Your task to perform on an android device: Add razer naga to the cart on newegg Image 0: 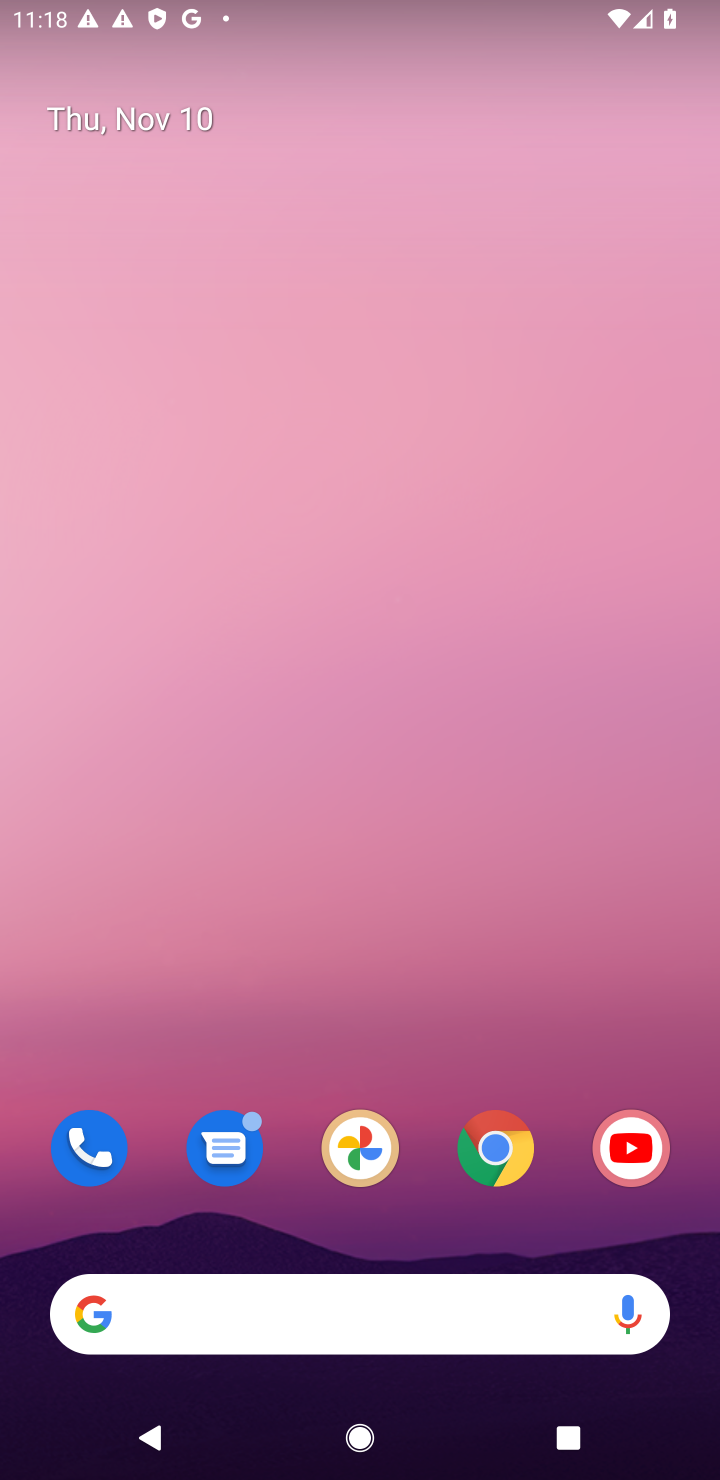
Step 0: click (323, 1309)
Your task to perform on an android device: Add razer naga to the cart on newegg Image 1: 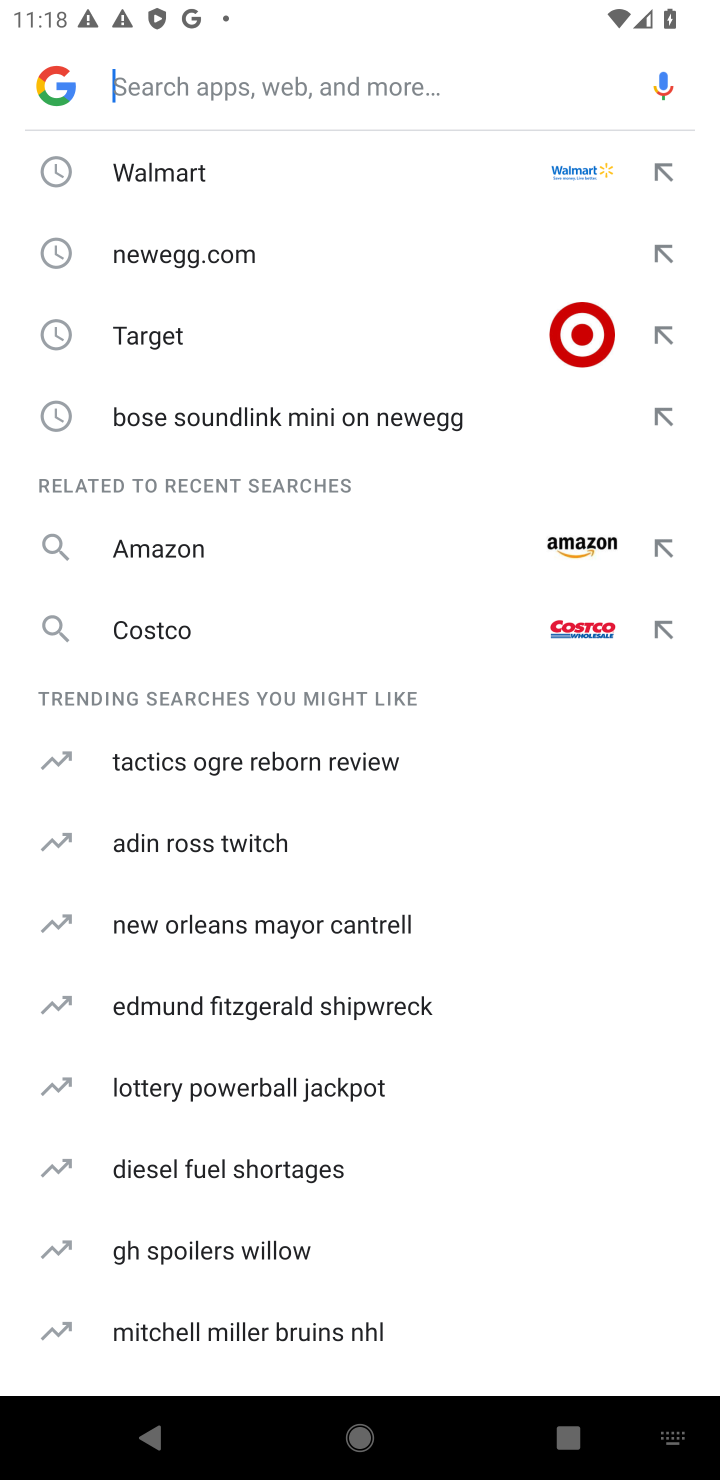
Step 1: type "razer naga on newegg"
Your task to perform on an android device: Add razer naga to the cart on newegg Image 2: 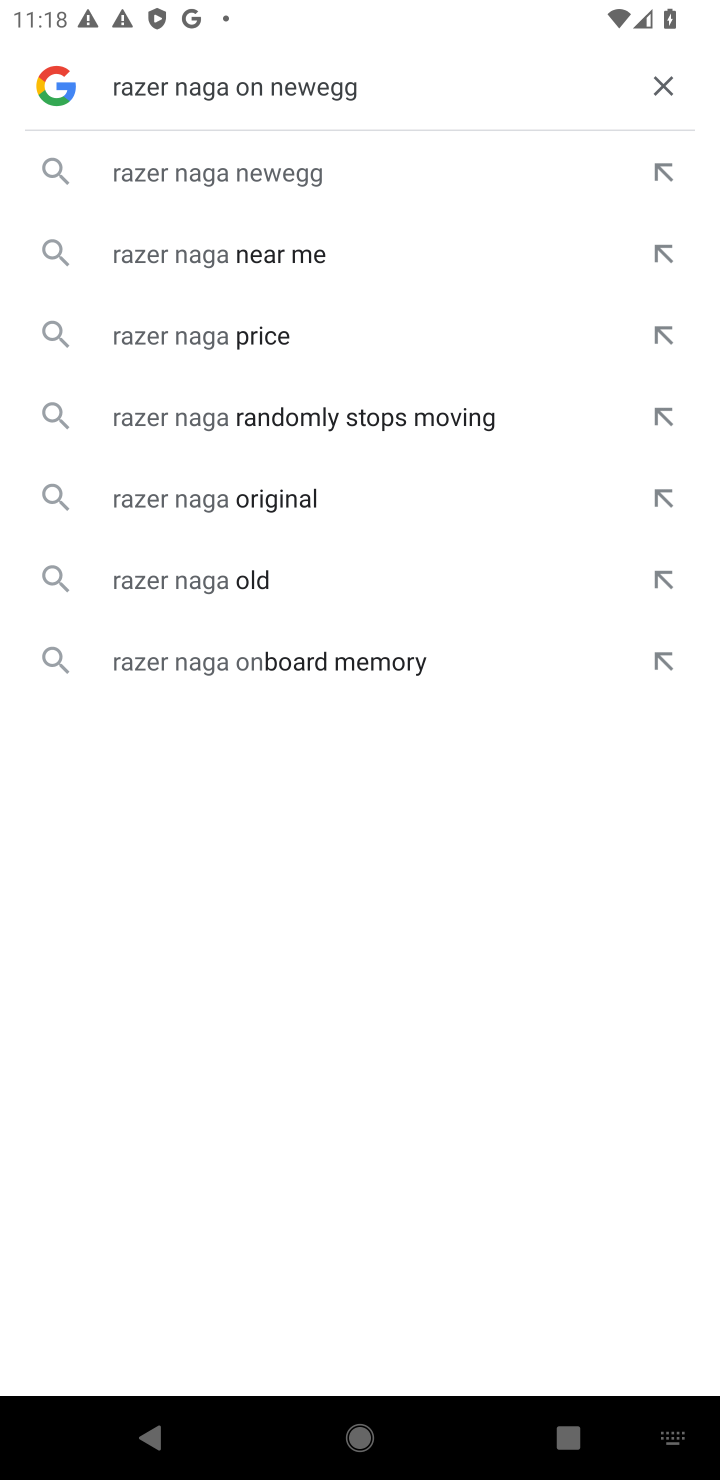
Step 2: click (237, 172)
Your task to perform on an android device: Add razer naga to the cart on newegg Image 3: 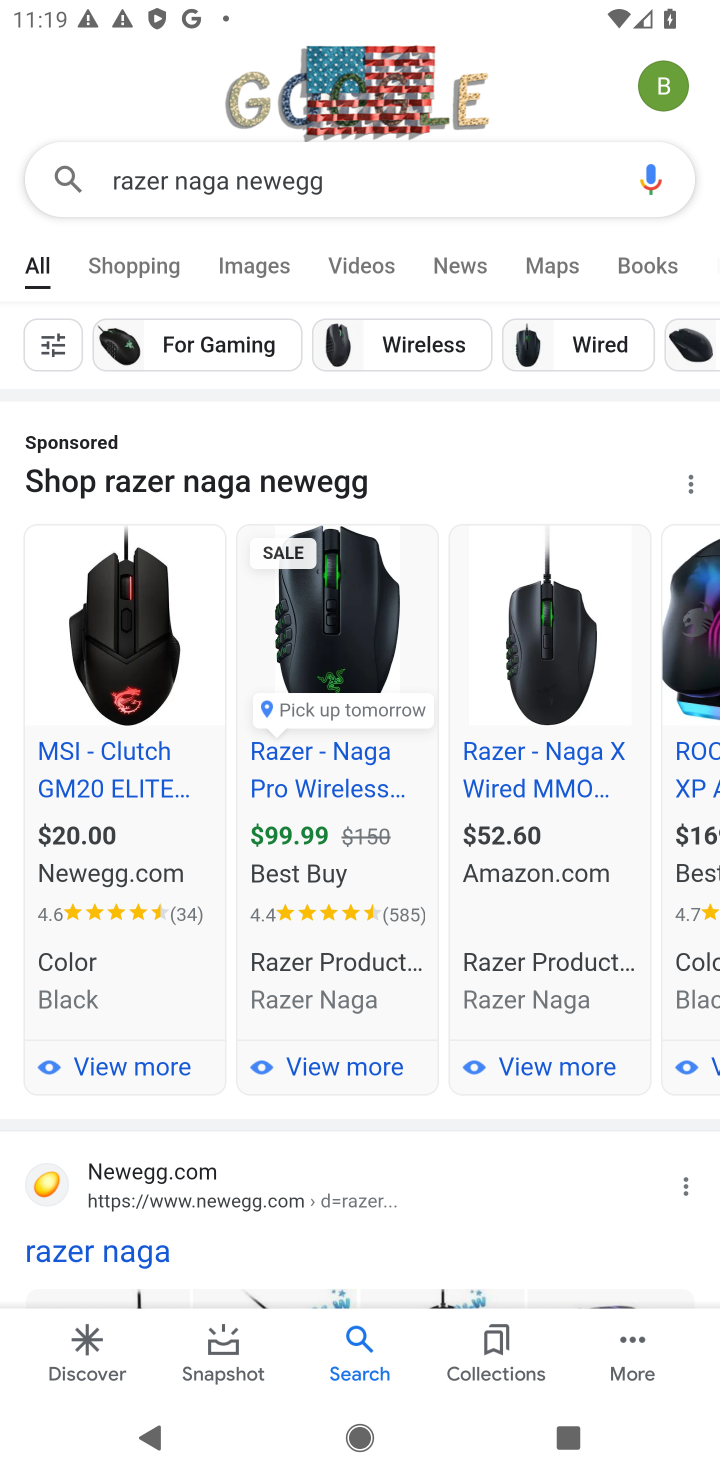
Step 3: click (99, 1242)
Your task to perform on an android device: Add razer naga to the cart on newegg Image 4: 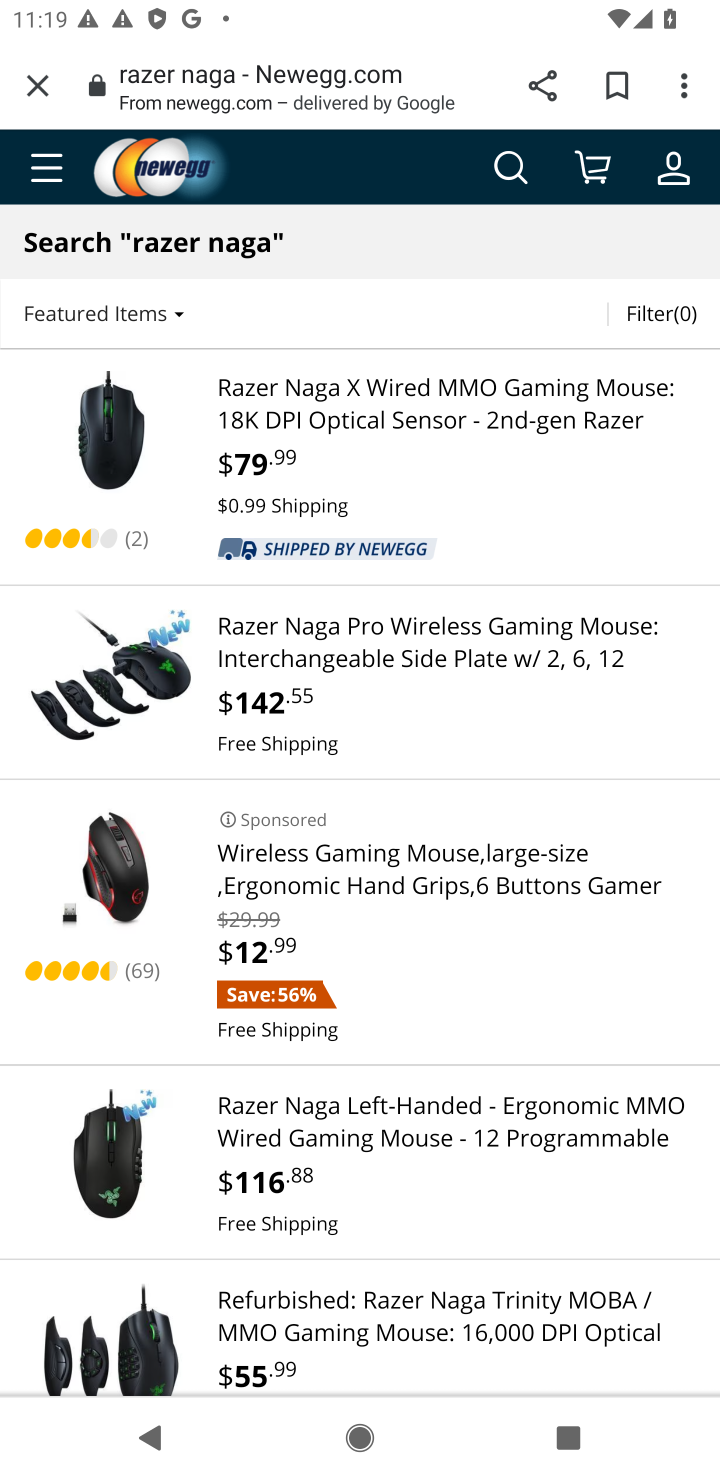
Step 4: click (457, 391)
Your task to perform on an android device: Add razer naga to the cart on newegg Image 5: 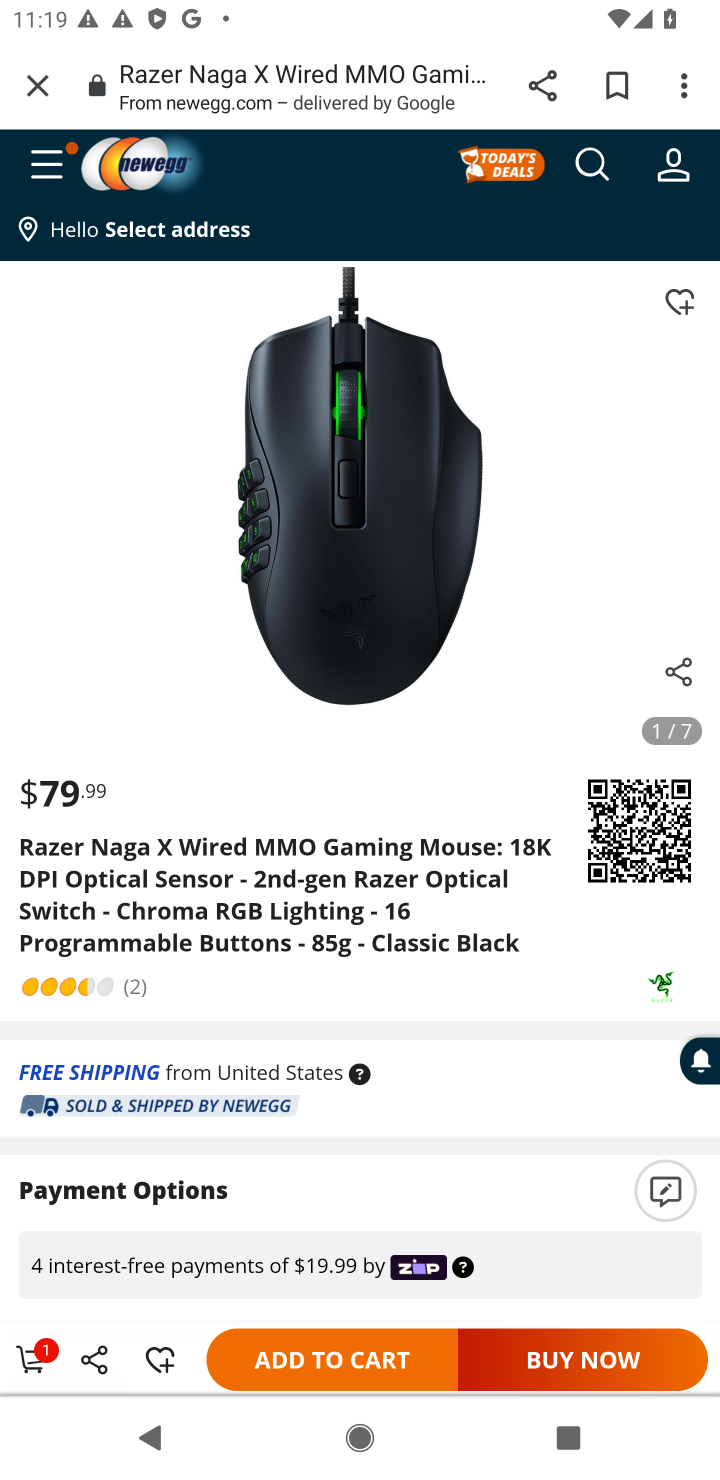
Step 5: click (314, 1344)
Your task to perform on an android device: Add razer naga to the cart on newegg Image 6: 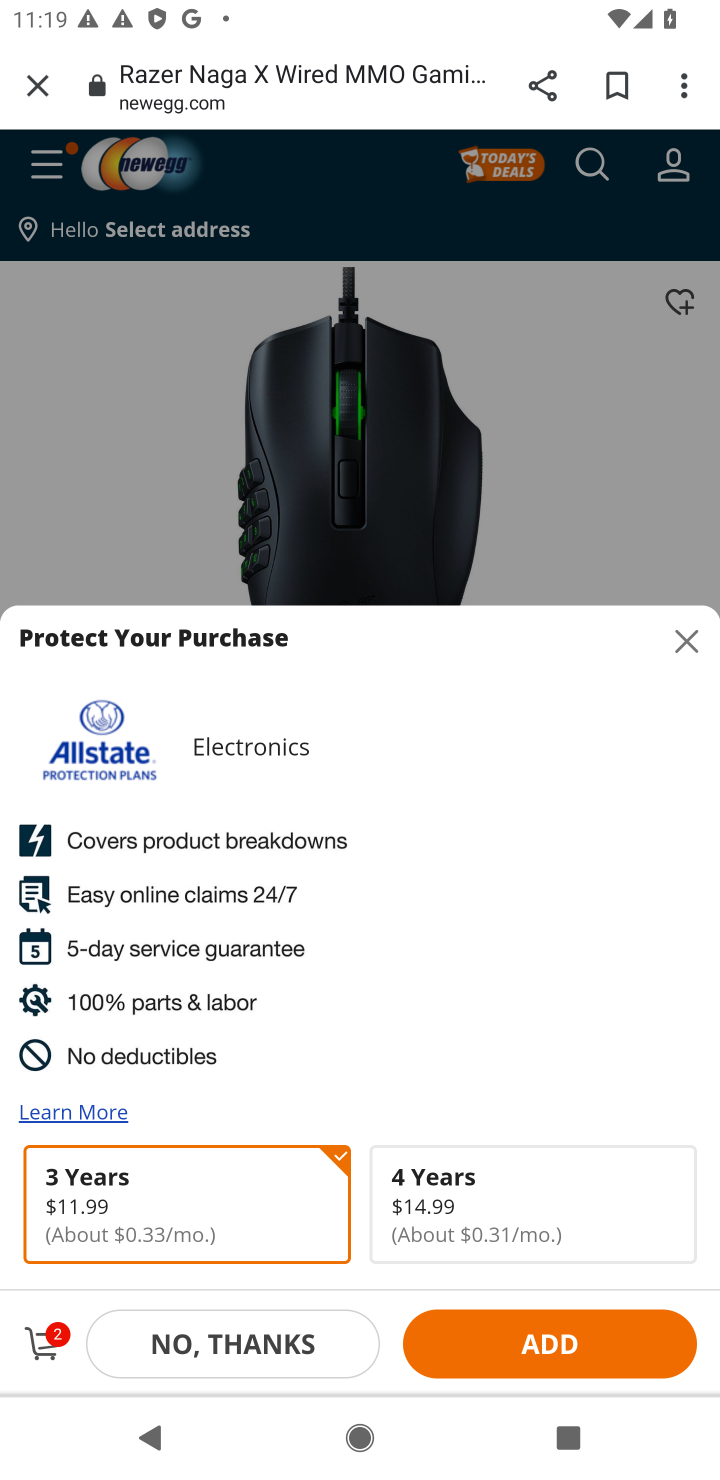
Step 6: task complete